Your task to perform on an android device: Open the stopwatch Image 0: 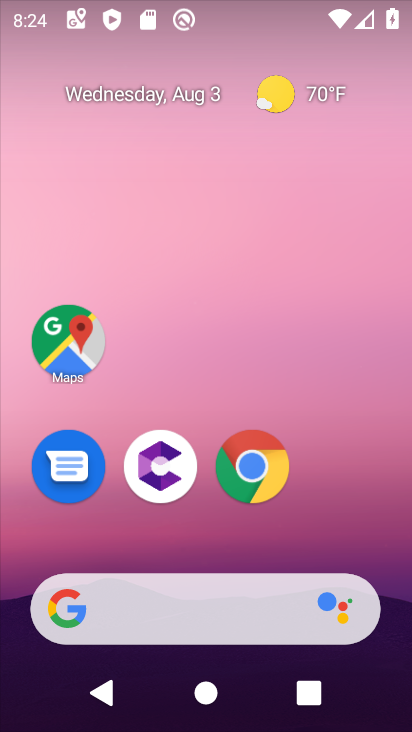
Step 0: drag from (349, 462) to (337, 132)
Your task to perform on an android device: Open the stopwatch Image 1: 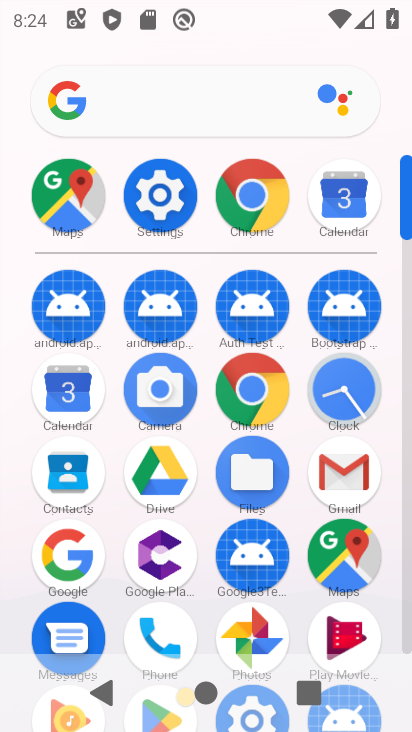
Step 1: click (345, 388)
Your task to perform on an android device: Open the stopwatch Image 2: 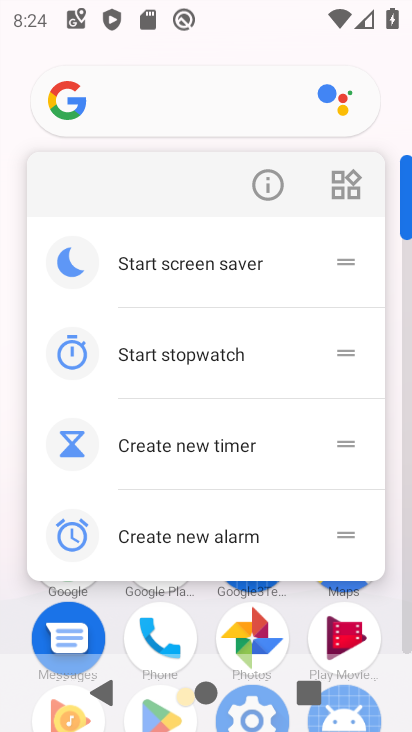
Step 2: click (399, 339)
Your task to perform on an android device: Open the stopwatch Image 3: 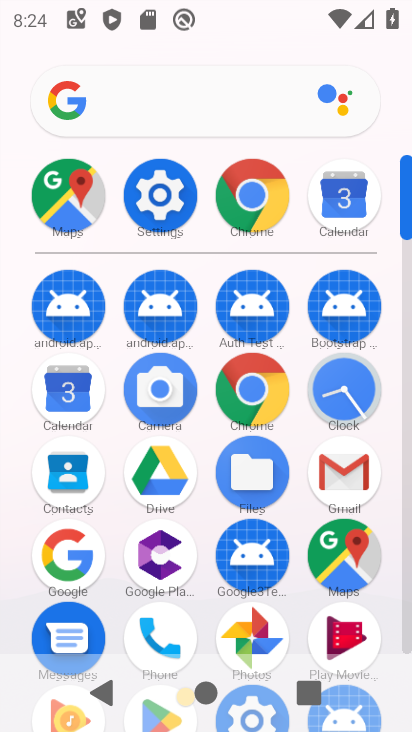
Step 3: click (350, 393)
Your task to perform on an android device: Open the stopwatch Image 4: 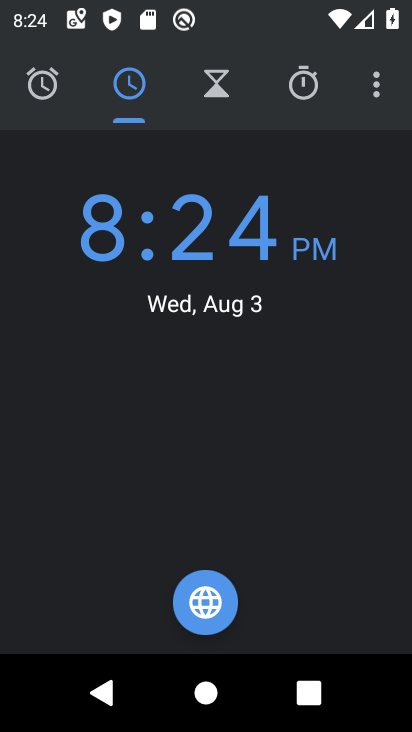
Step 4: click (317, 92)
Your task to perform on an android device: Open the stopwatch Image 5: 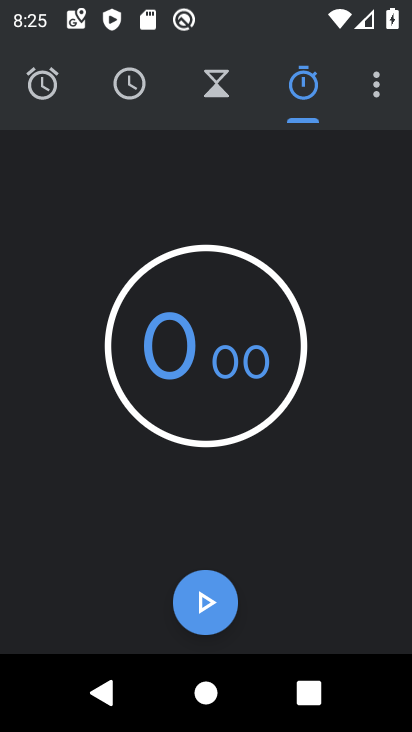
Step 5: task complete